Your task to perform on an android device: Open Android settings Image 0: 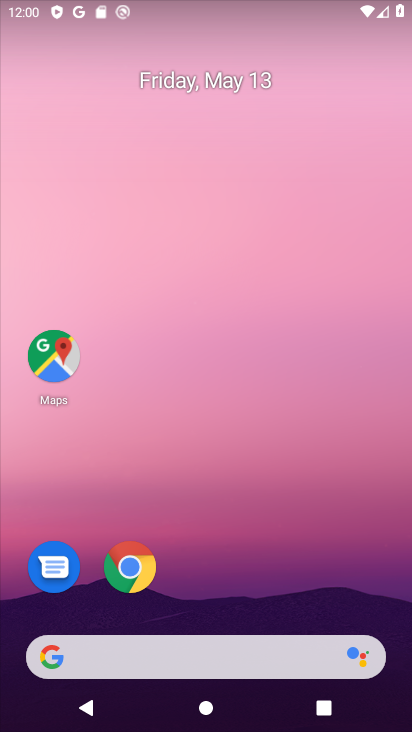
Step 0: drag from (191, 650) to (229, 236)
Your task to perform on an android device: Open Android settings Image 1: 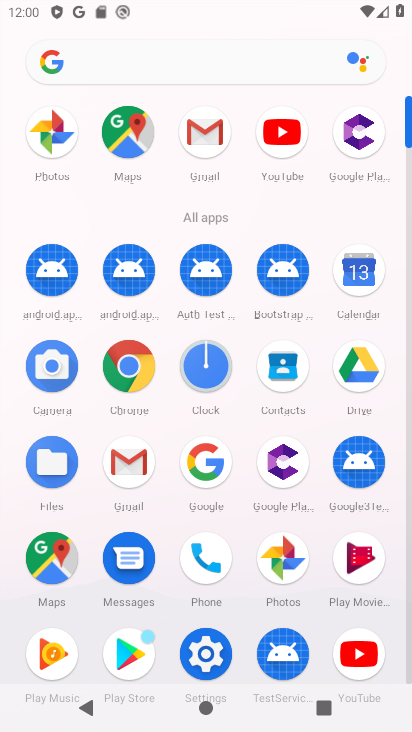
Step 1: click (214, 646)
Your task to perform on an android device: Open Android settings Image 2: 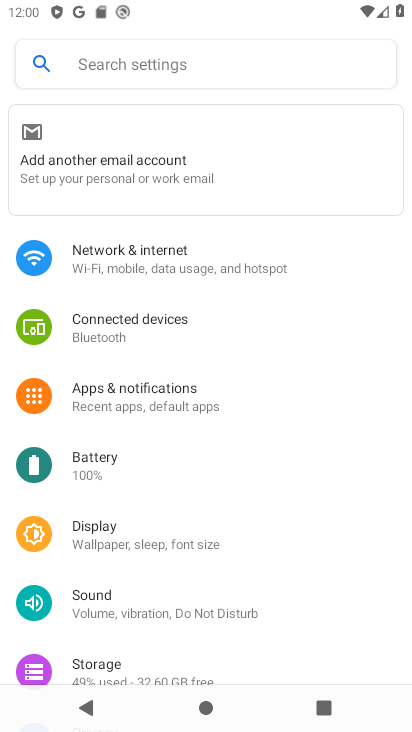
Step 2: drag from (145, 641) to (278, 182)
Your task to perform on an android device: Open Android settings Image 3: 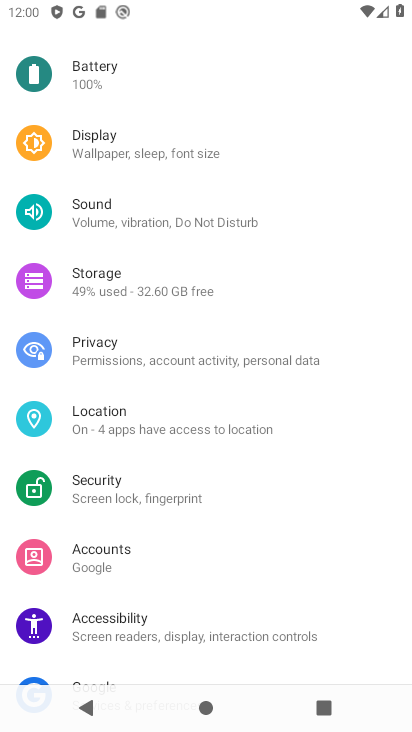
Step 3: drag from (194, 616) to (254, 201)
Your task to perform on an android device: Open Android settings Image 4: 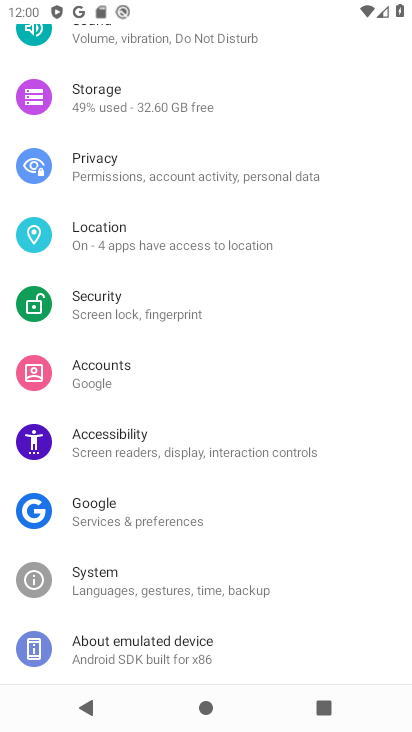
Step 4: click (185, 643)
Your task to perform on an android device: Open Android settings Image 5: 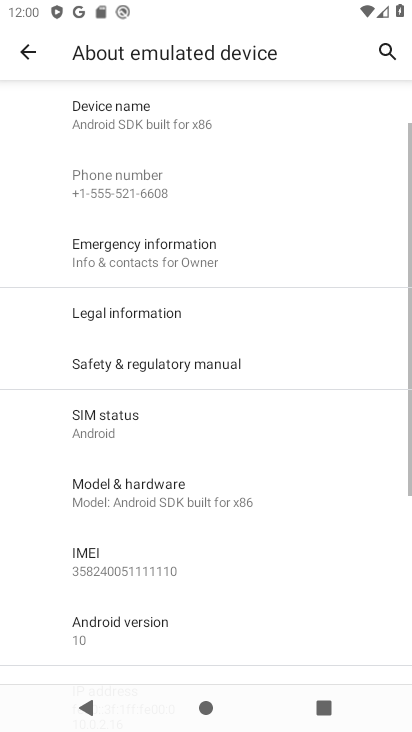
Step 5: drag from (162, 553) to (229, 203)
Your task to perform on an android device: Open Android settings Image 6: 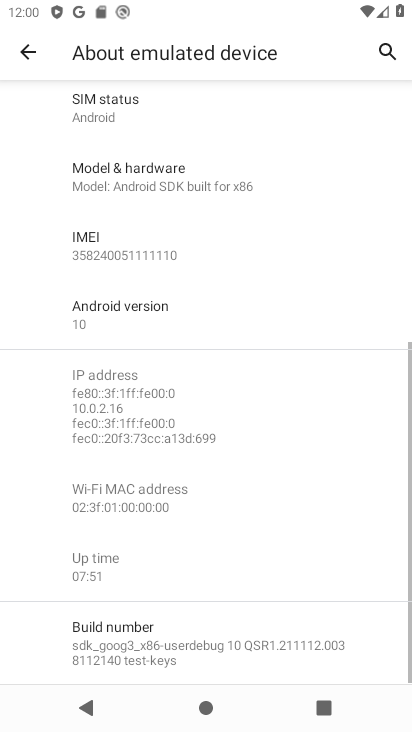
Step 6: click (194, 328)
Your task to perform on an android device: Open Android settings Image 7: 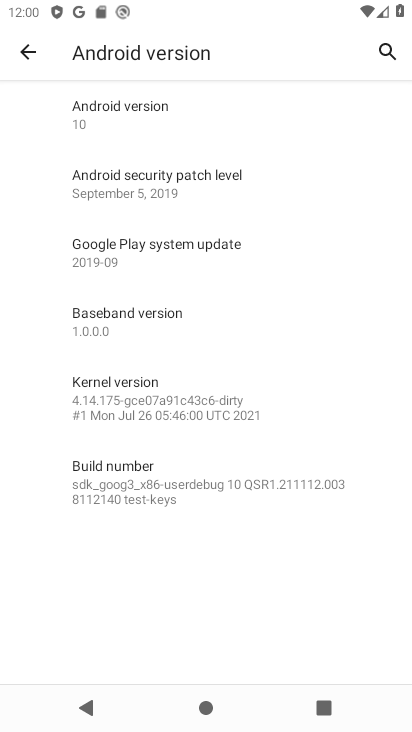
Step 7: task complete